Your task to perform on an android device: delete the emails in spam in the gmail app Image 0: 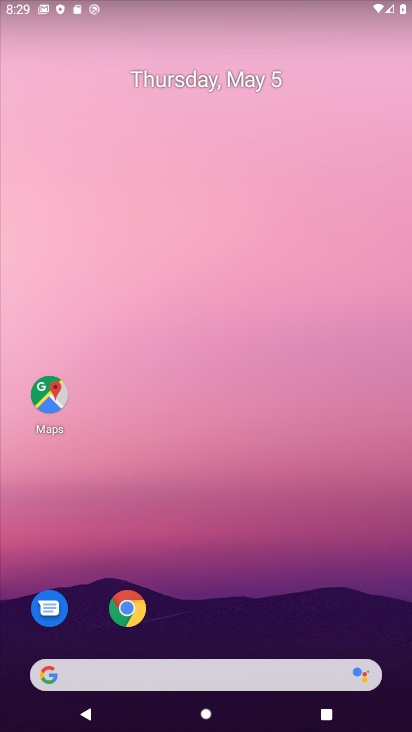
Step 0: drag from (235, 628) to (276, 27)
Your task to perform on an android device: delete the emails in spam in the gmail app Image 1: 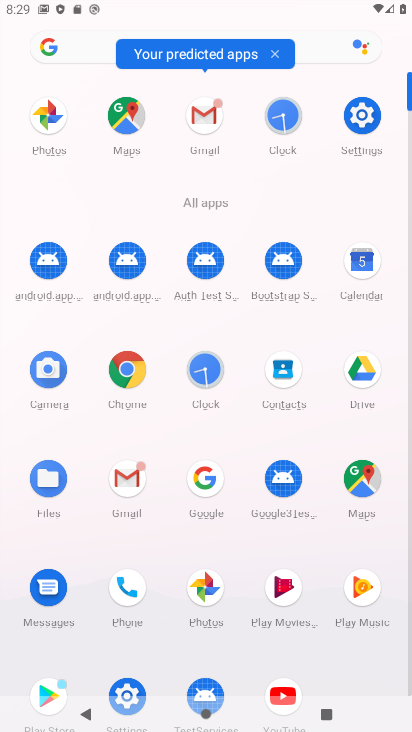
Step 1: click (207, 123)
Your task to perform on an android device: delete the emails in spam in the gmail app Image 2: 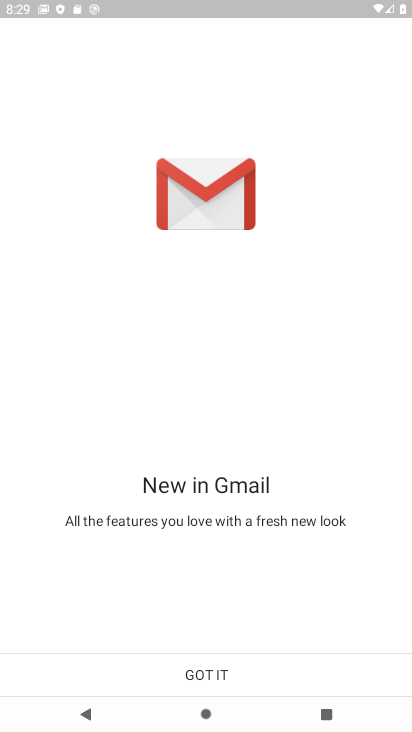
Step 2: click (246, 671)
Your task to perform on an android device: delete the emails in spam in the gmail app Image 3: 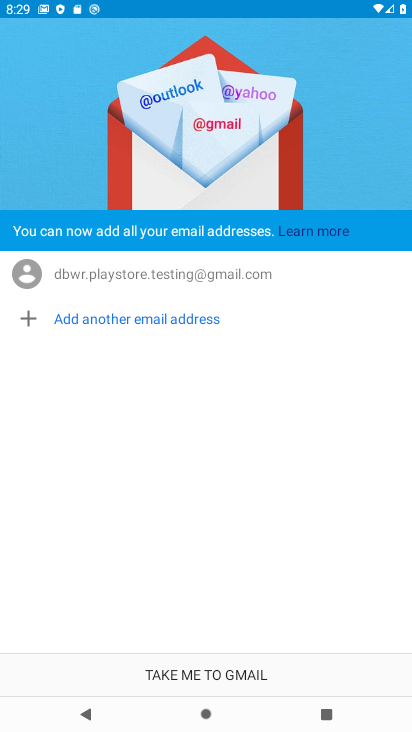
Step 3: click (243, 677)
Your task to perform on an android device: delete the emails in spam in the gmail app Image 4: 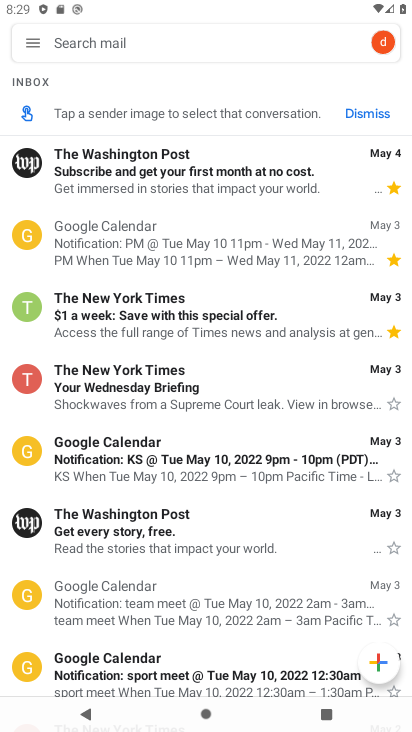
Step 4: click (33, 42)
Your task to perform on an android device: delete the emails in spam in the gmail app Image 5: 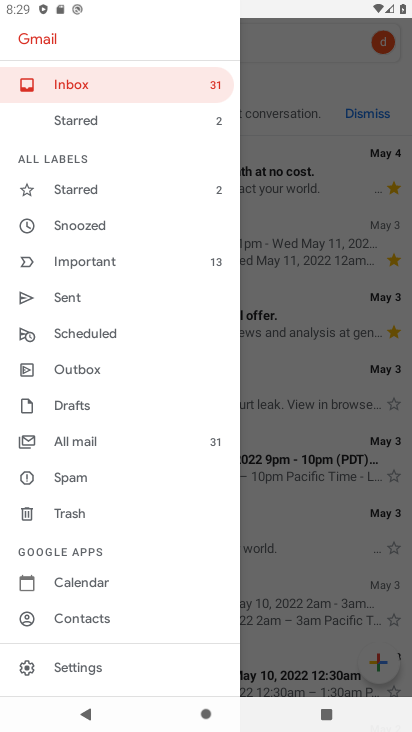
Step 5: click (74, 478)
Your task to perform on an android device: delete the emails in spam in the gmail app Image 6: 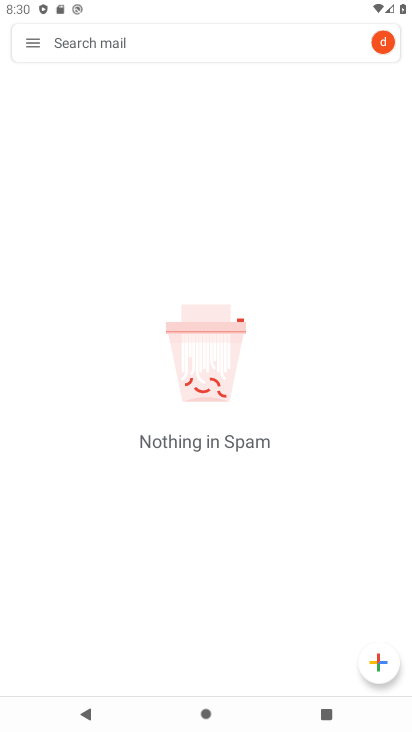
Step 6: task complete